Your task to perform on an android device: visit the assistant section in the google photos Image 0: 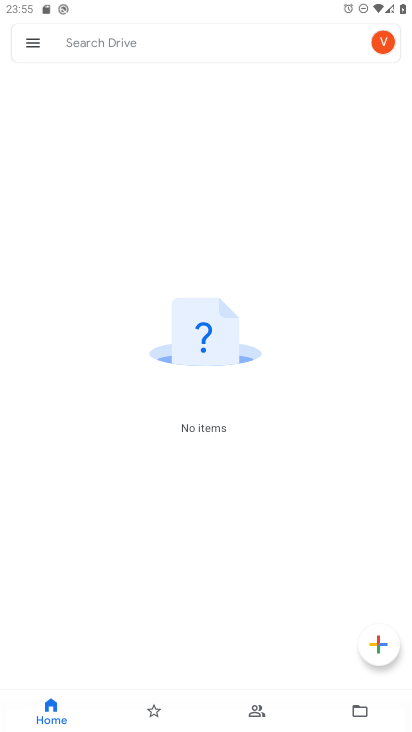
Step 0: press home button
Your task to perform on an android device: visit the assistant section in the google photos Image 1: 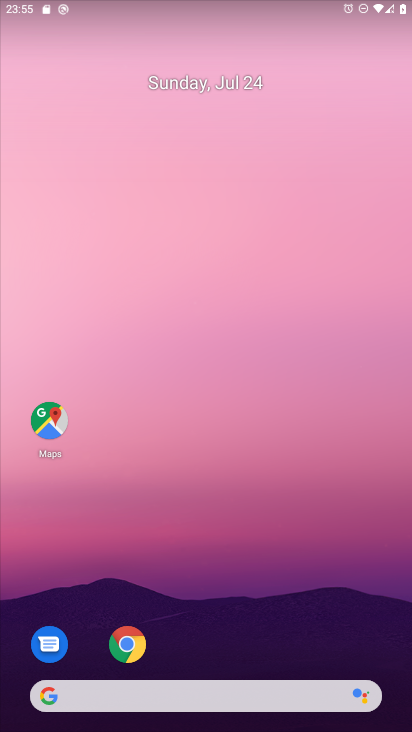
Step 1: drag from (369, 635) to (341, 146)
Your task to perform on an android device: visit the assistant section in the google photos Image 2: 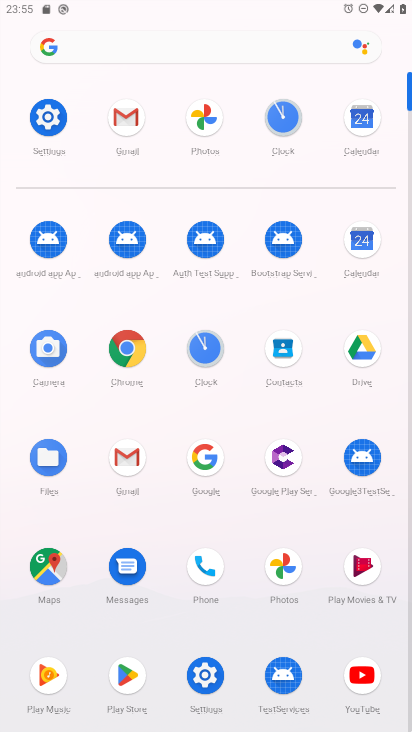
Step 2: click (284, 565)
Your task to perform on an android device: visit the assistant section in the google photos Image 3: 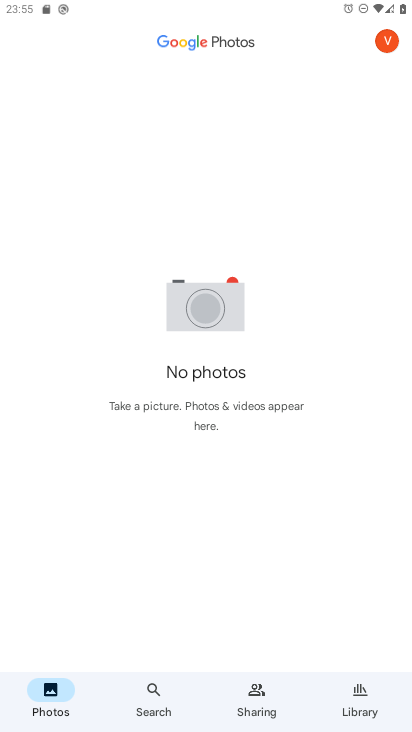
Step 3: task complete